Your task to perform on an android device: change the clock display to show seconds Image 0: 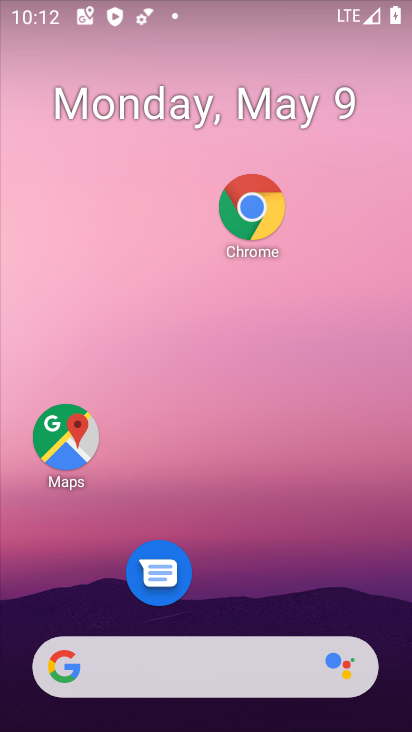
Step 0: drag from (322, 572) to (391, 18)
Your task to perform on an android device: change the clock display to show seconds Image 1: 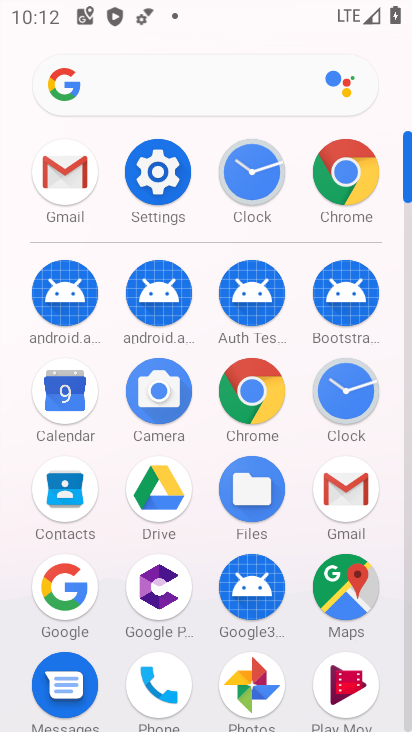
Step 1: click (351, 405)
Your task to perform on an android device: change the clock display to show seconds Image 2: 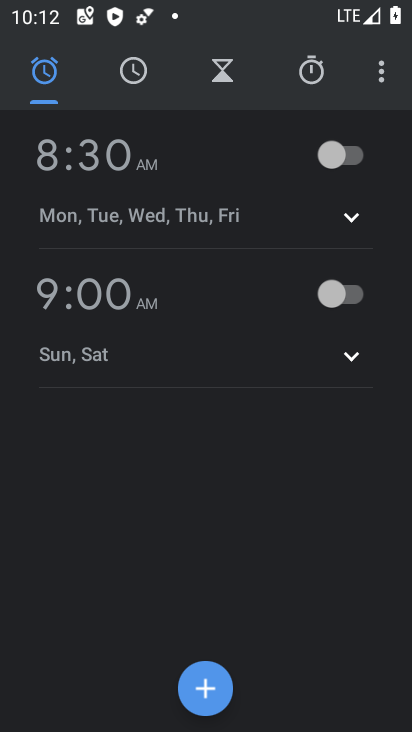
Step 2: click (383, 55)
Your task to perform on an android device: change the clock display to show seconds Image 3: 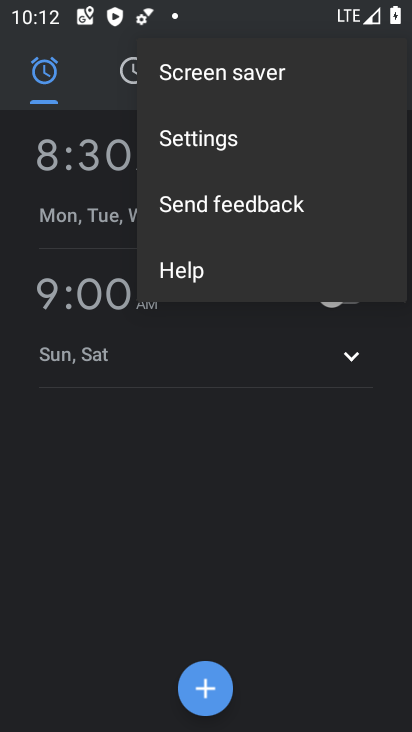
Step 3: click (216, 140)
Your task to perform on an android device: change the clock display to show seconds Image 4: 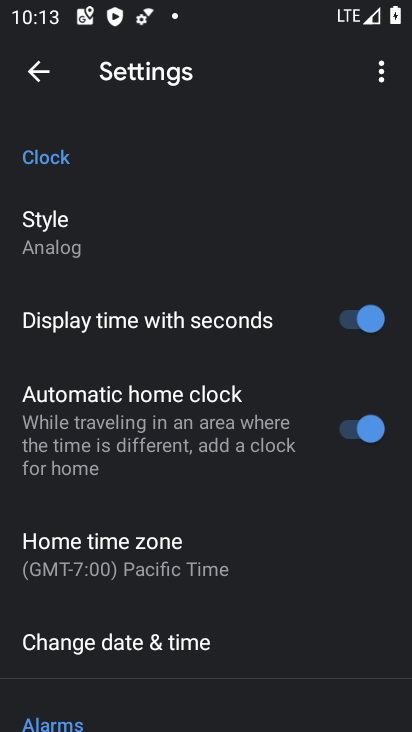
Step 4: task complete